Your task to perform on an android device: Empty the shopping cart on walmart.com. Search for "logitech g933" on walmart.com, select the first entry, add it to the cart, then select checkout. Image 0: 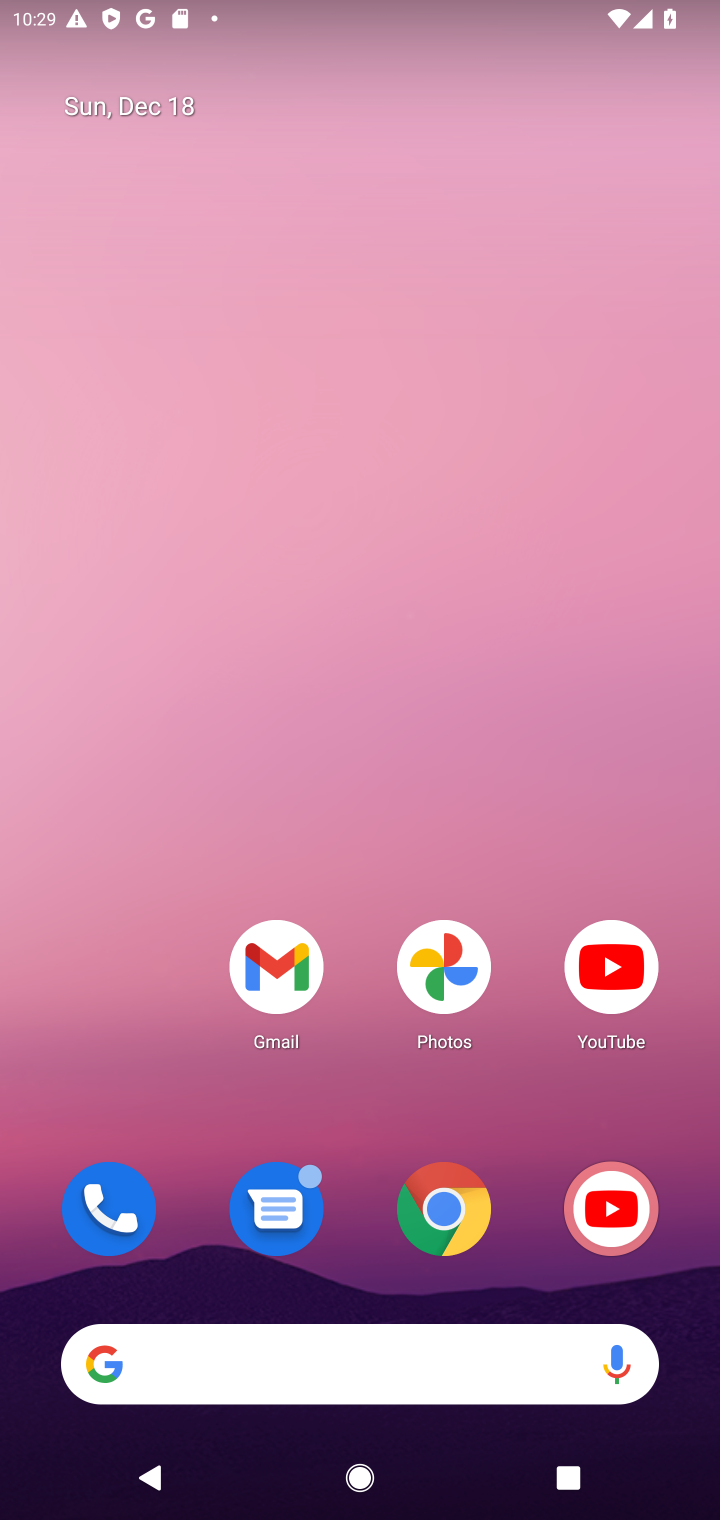
Step 0: task complete